Your task to perform on an android device: Go to ESPN.com Image 0: 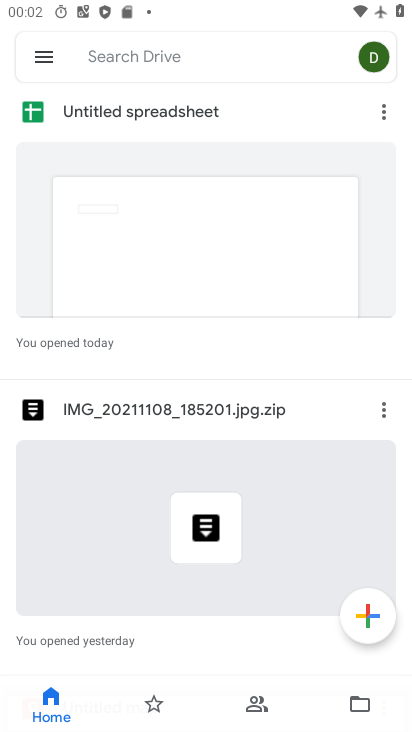
Step 0: press home button
Your task to perform on an android device: Go to ESPN.com Image 1: 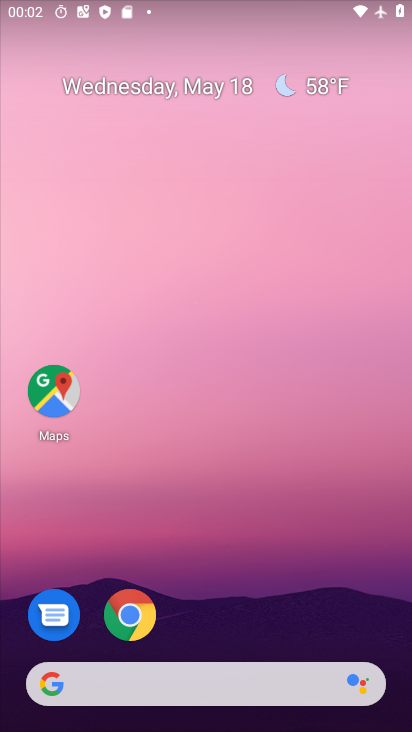
Step 1: click (122, 626)
Your task to perform on an android device: Go to ESPN.com Image 2: 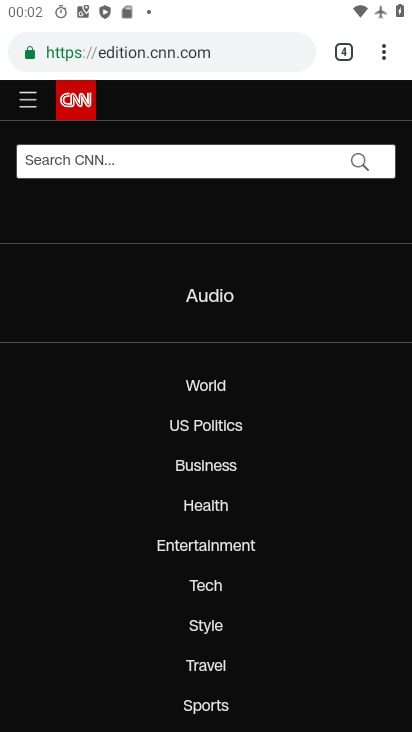
Step 2: click (349, 52)
Your task to perform on an android device: Go to ESPN.com Image 3: 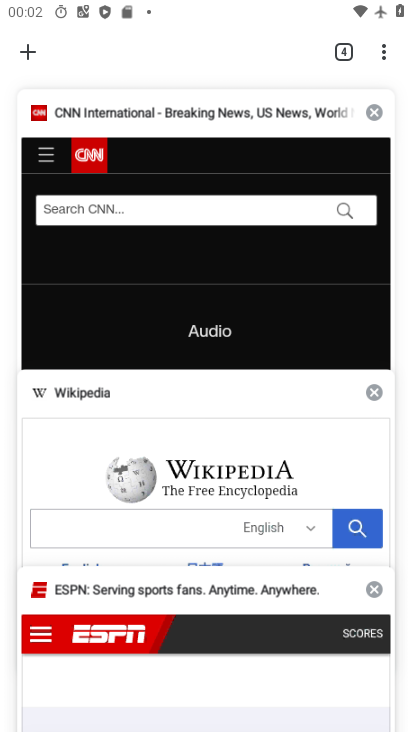
Step 3: click (143, 611)
Your task to perform on an android device: Go to ESPN.com Image 4: 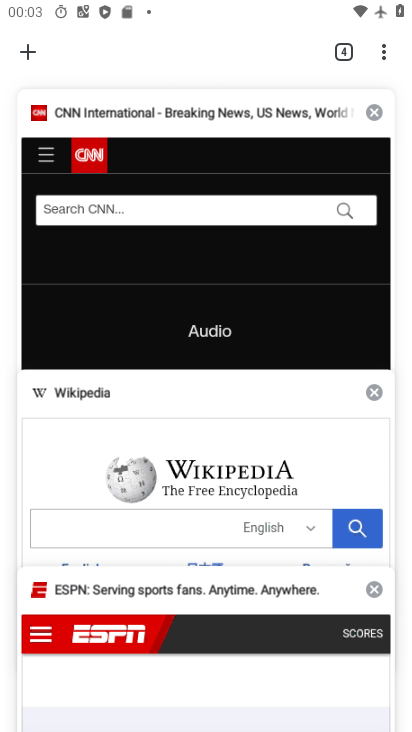
Step 4: task complete